Your task to perform on an android device: Open location settings Image 0: 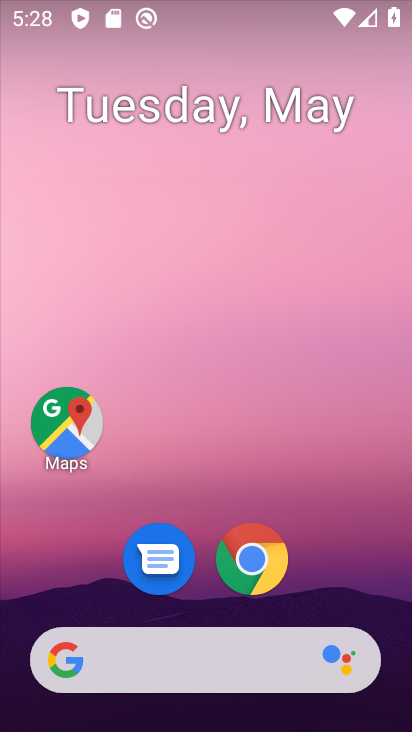
Step 0: drag from (197, 610) to (236, 221)
Your task to perform on an android device: Open location settings Image 1: 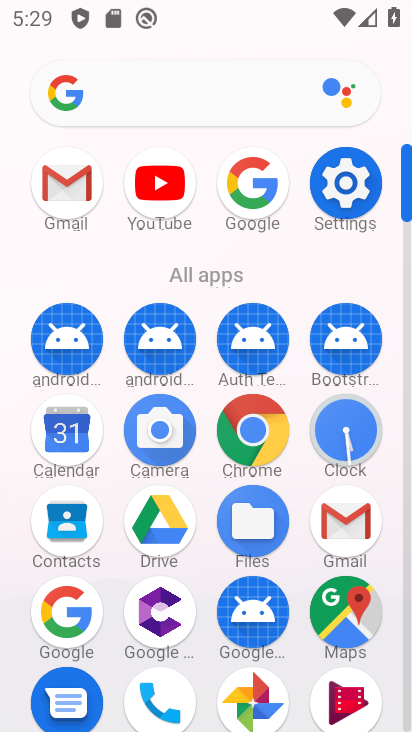
Step 1: drag from (196, 656) to (245, 406)
Your task to perform on an android device: Open location settings Image 2: 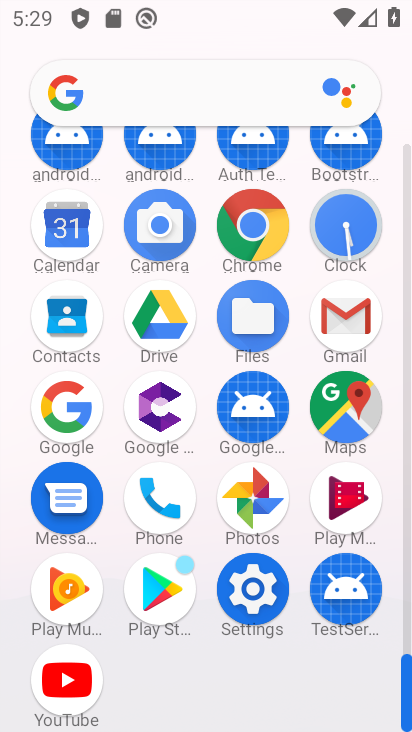
Step 2: click (251, 603)
Your task to perform on an android device: Open location settings Image 3: 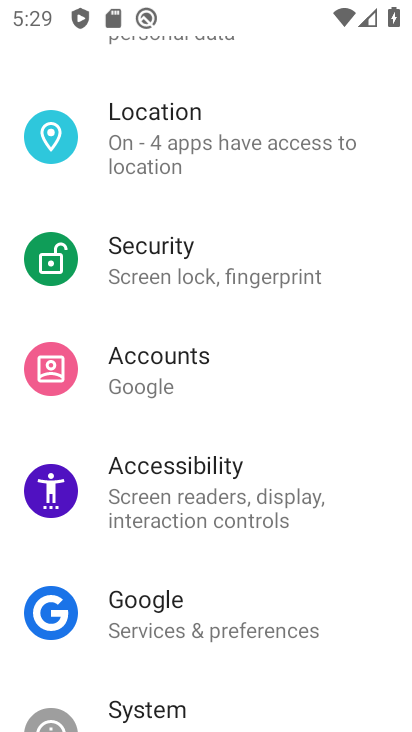
Step 3: click (148, 156)
Your task to perform on an android device: Open location settings Image 4: 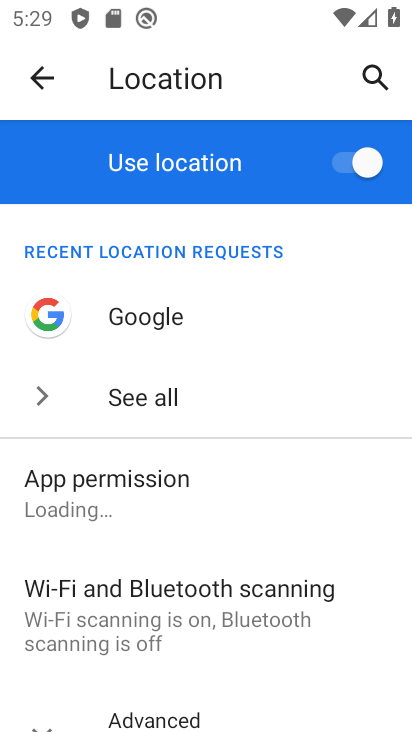
Step 4: task complete